Your task to perform on an android device: Go to privacy settings Image 0: 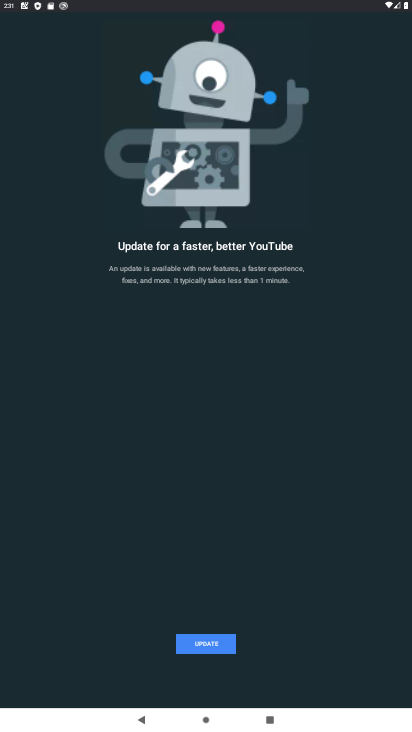
Step 0: press home button
Your task to perform on an android device: Go to privacy settings Image 1: 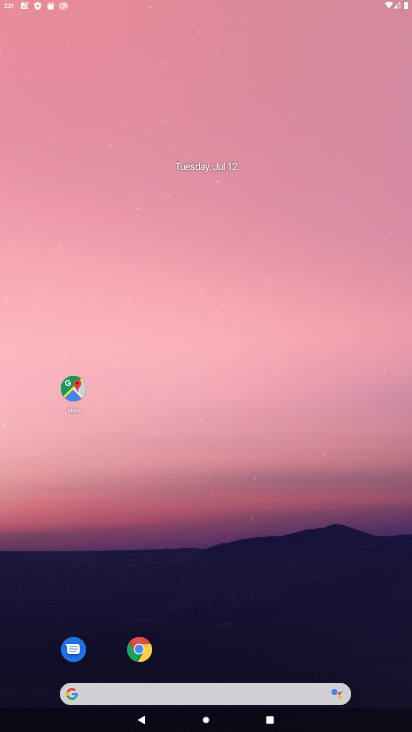
Step 1: drag from (211, 439) to (26, 133)
Your task to perform on an android device: Go to privacy settings Image 2: 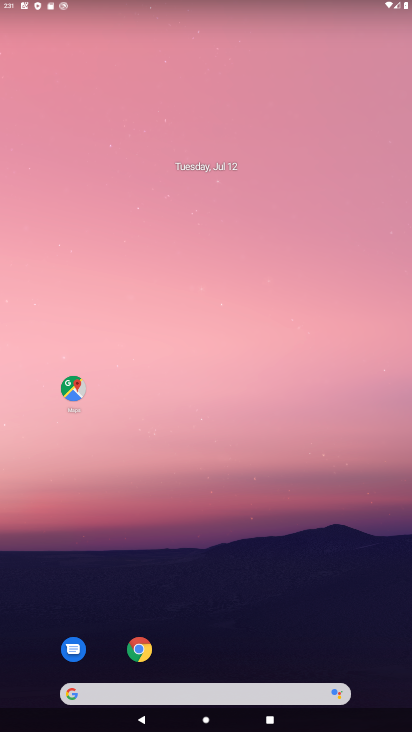
Step 2: drag from (199, 580) to (217, 84)
Your task to perform on an android device: Go to privacy settings Image 3: 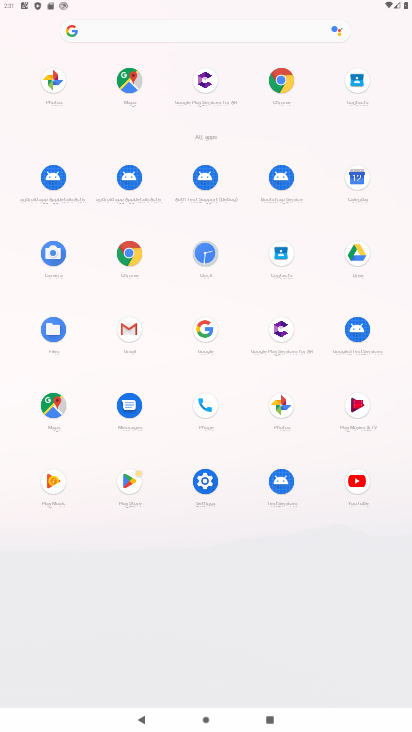
Step 3: click (210, 493)
Your task to perform on an android device: Go to privacy settings Image 4: 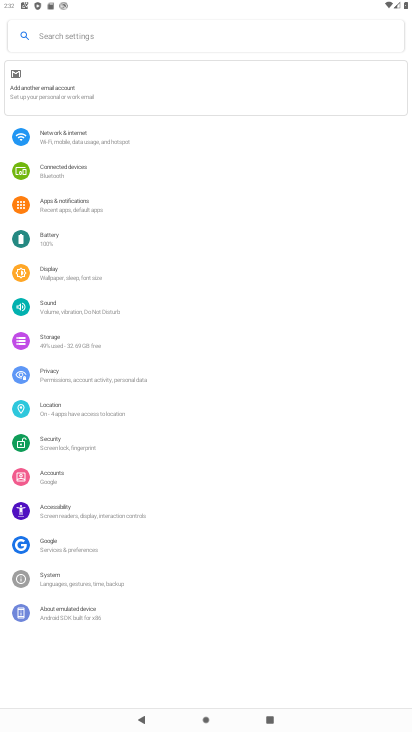
Step 4: click (89, 368)
Your task to perform on an android device: Go to privacy settings Image 5: 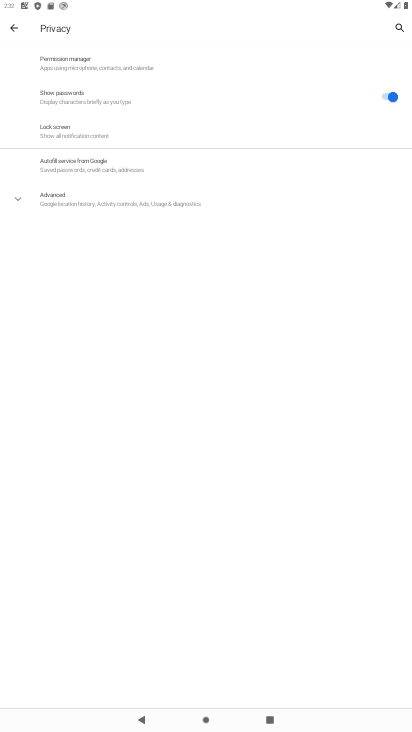
Step 5: task complete